Your task to perform on an android device: Open accessibility settings Image 0: 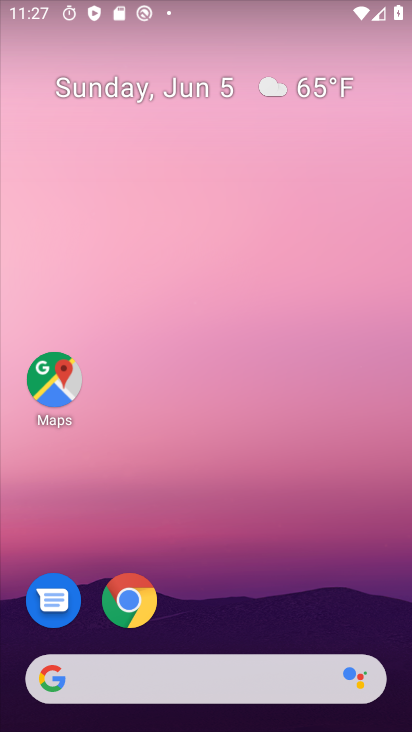
Step 0: drag from (224, 284) to (224, 243)
Your task to perform on an android device: Open accessibility settings Image 1: 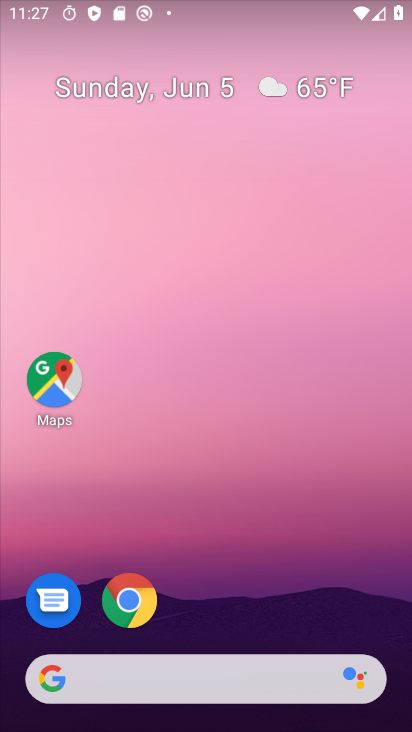
Step 1: drag from (214, 585) to (168, 355)
Your task to perform on an android device: Open accessibility settings Image 2: 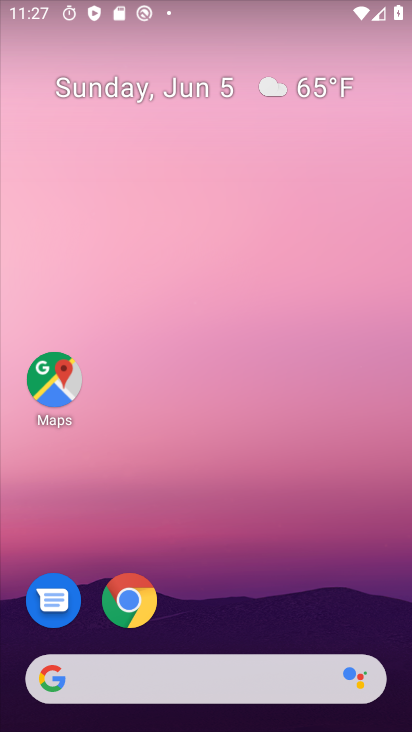
Step 2: drag from (246, 635) to (186, 396)
Your task to perform on an android device: Open accessibility settings Image 3: 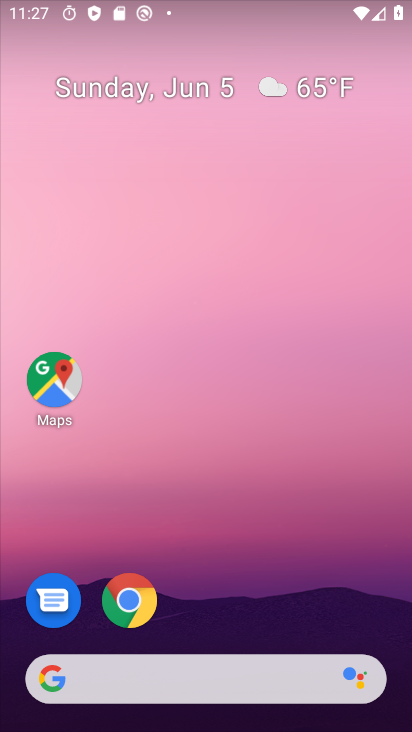
Step 3: drag from (269, 692) to (57, 210)
Your task to perform on an android device: Open accessibility settings Image 4: 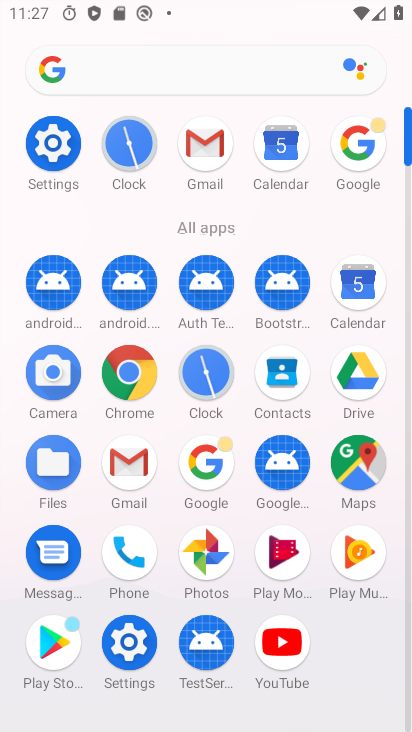
Step 4: click (41, 151)
Your task to perform on an android device: Open accessibility settings Image 5: 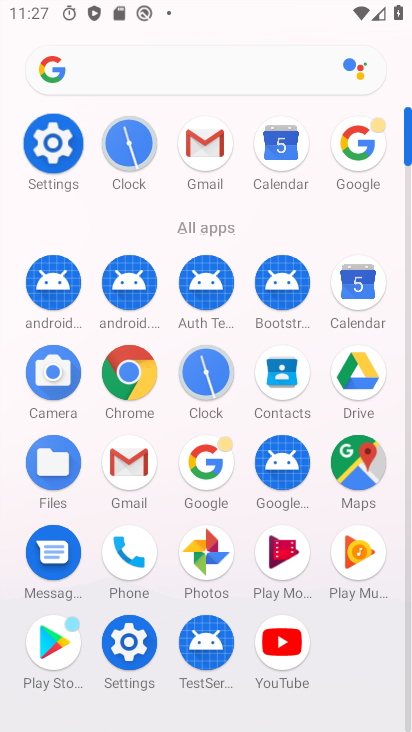
Step 5: click (41, 153)
Your task to perform on an android device: Open accessibility settings Image 6: 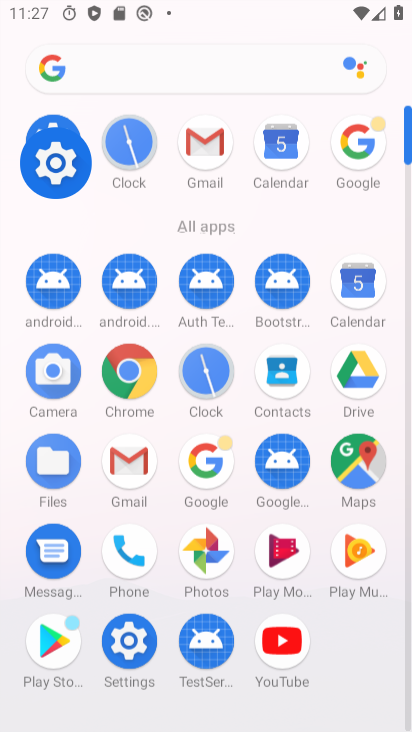
Step 6: click (41, 153)
Your task to perform on an android device: Open accessibility settings Image 7: 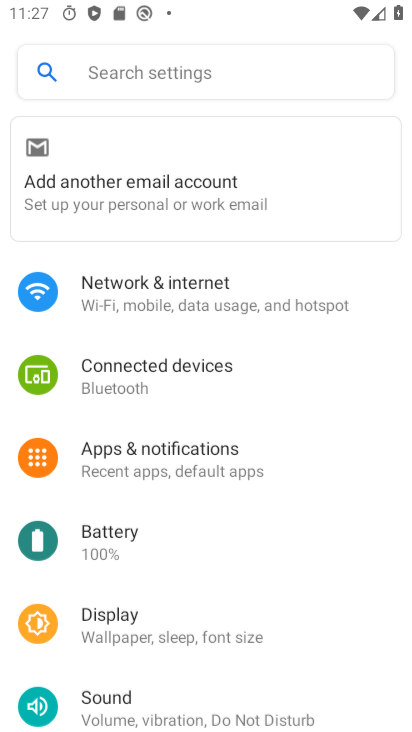
Step 7: click (41, 153)
Your task to perform on an android device: Open accessibility settings Image 8: 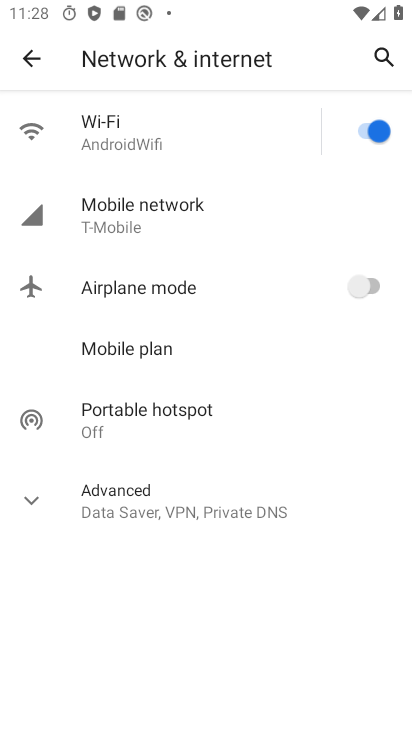
Step 8: click (20, 60)
Your task to perform on an android device: Open accessibility settings Image 9: 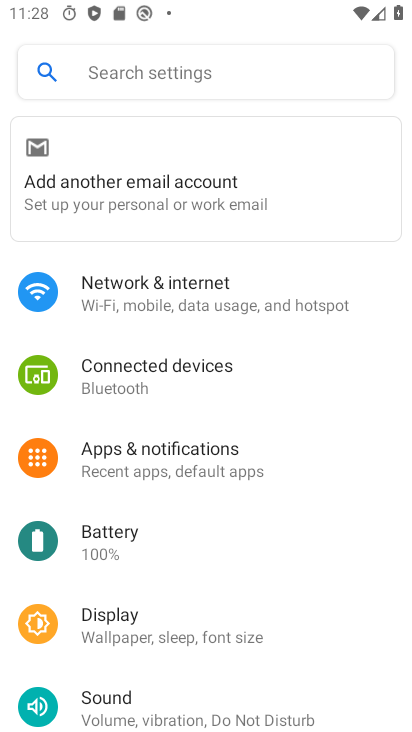
Step 9: drag from (191, 571) to (151, 196)
Your task to perform on an android device: Open accessibility settings Image 10: 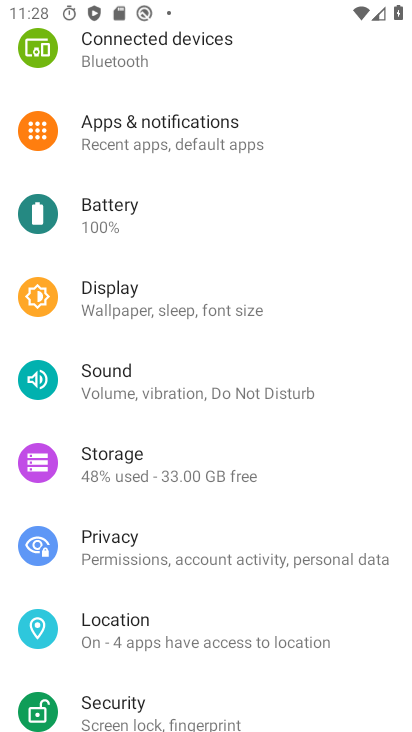
Step 10: drag from (206, 524) to (185, 370)
Your task to perform on an android device: Open accessibility settings Image 11: 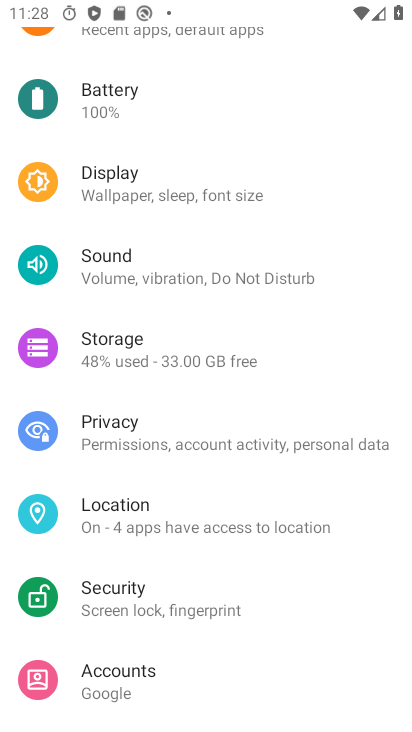
Step 11: drag from (234, 493) to (146, 53)
Your task to perform on an android device: Open accessibility settings Image 12: 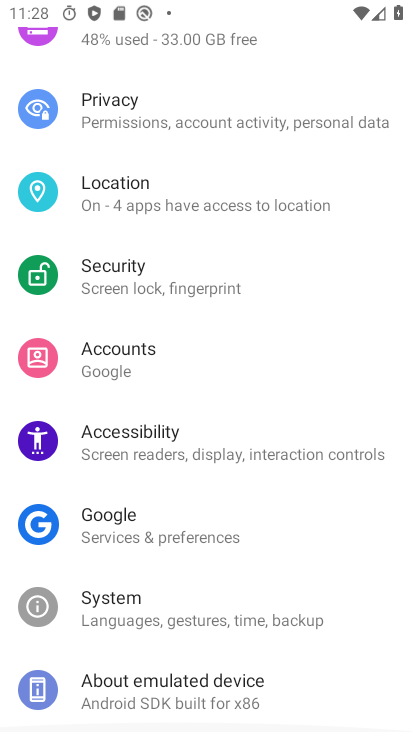
Step 12: drag from (151, 606) to (186, 183)
Your task to perform on an android device: Open accessibility settings Image 13: 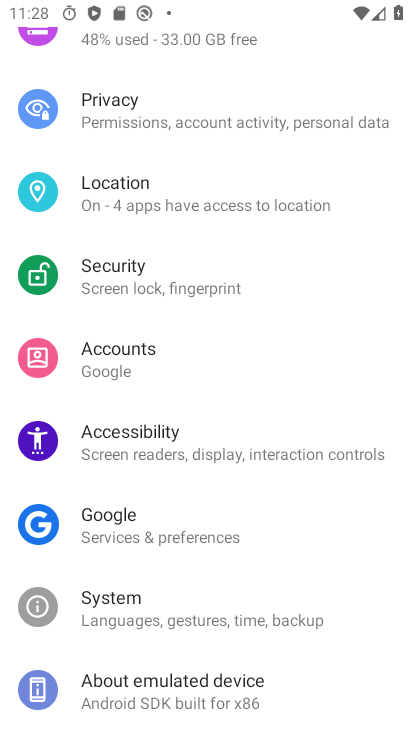
Step 13: drag from (229, 526) to (156, 204)
Your task to perform on an android device: Open accessibility settings Image 14: 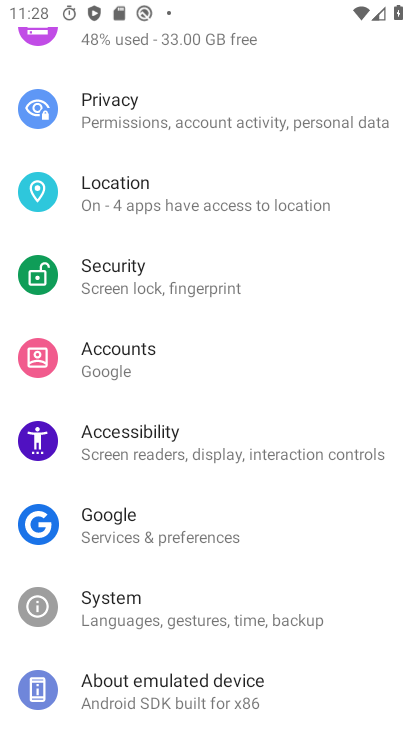
Step 14: click (137, 451)
Your task to perform on an android device: Open accessibility settings Image 15: 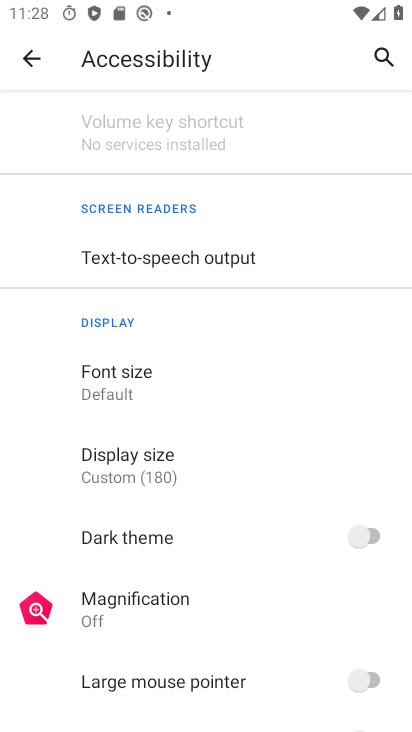
Step 15: task complete